Your task to perform on an android device: Find coffee shops on Maps Image 0: 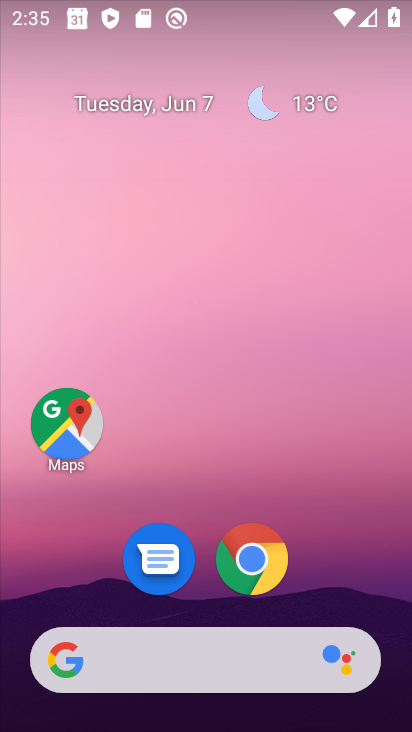
Step 0: click (64, 427)
Your task to perform on an android device: Find coffee shops on Maps Image 1: 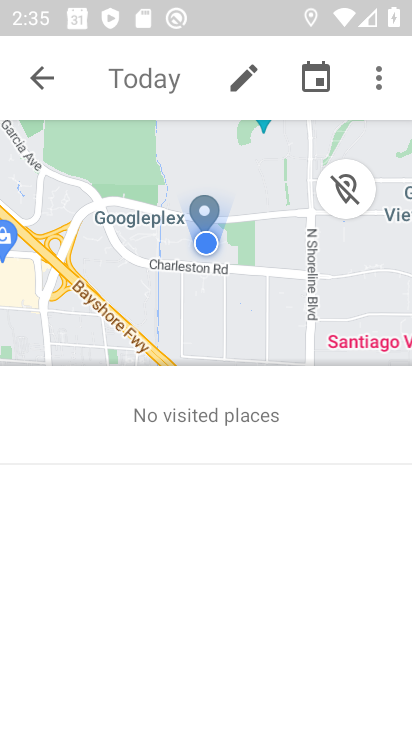
Step 1: click (49, 83)
Your task to perform on an android device: Find coffee shops on Maps Image 2: 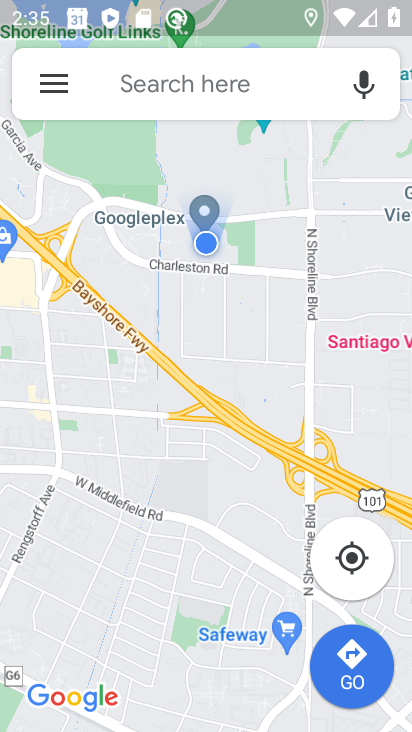
Step 2: click (181, 101)
Your task to perform on an android device: Find coffee shops on Maps Image 3: 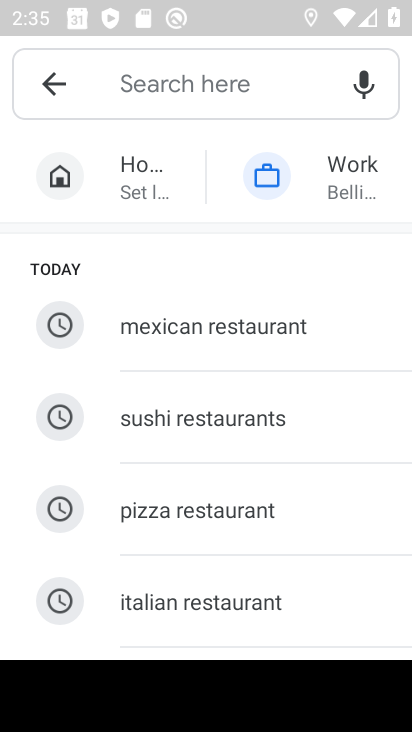
Step 3: type "coffee shops"
Your task to perform on an android device: Find coffee shops on Maps Image 4: 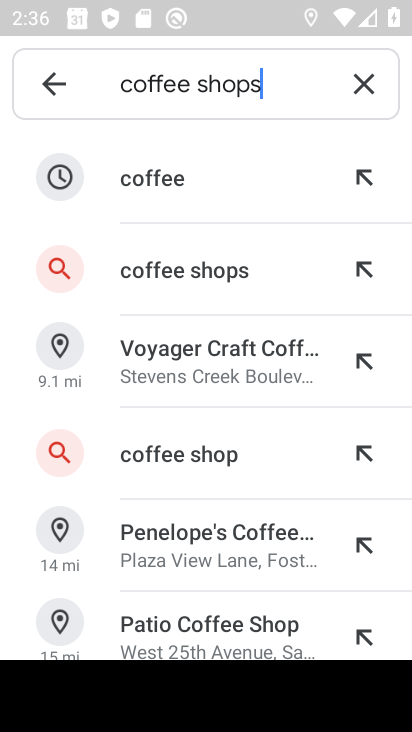
Step 4: click (218, 275)
Your task to perform on an android device: Find coffee shops on Maps Image 5: 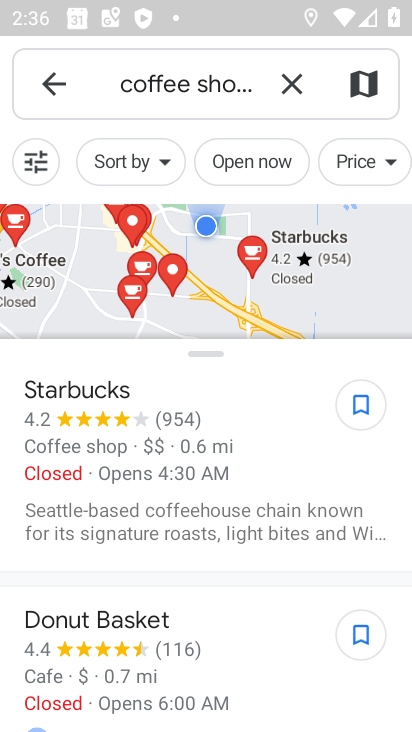
Step 5: task complete